Your task to perform on an android device: add a contact Image 0: 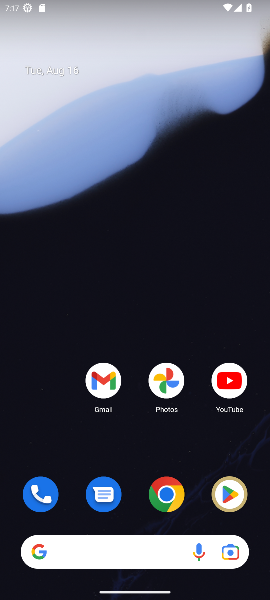
Step 0: drag from (51, 422) to (59, 159)
Your task to perform on an android device: add a contact Image 1: 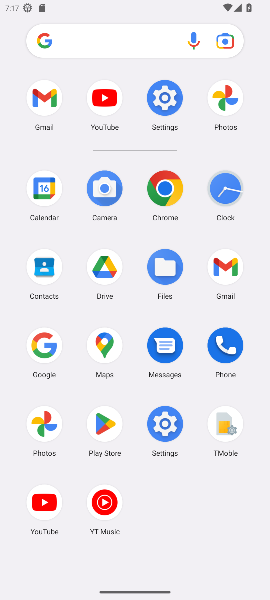
Step 1: click (40, 271)
Your task to perform on an android device: add a contact Image 2: 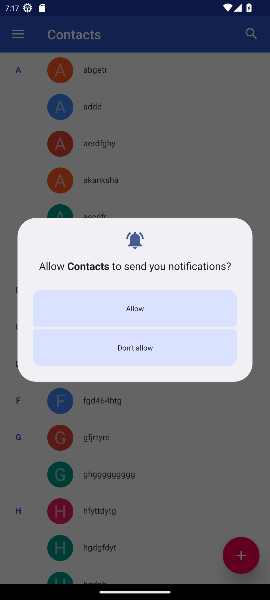
Step 2: click (141, 351)
Your task to perform on an android device: add a contact Image 3: 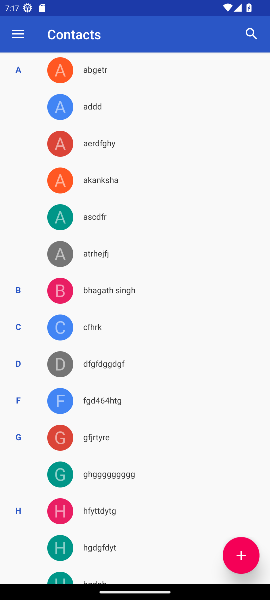
Step 3: task complete